Your task to perform on an android device: Go to Android settings Image 0: 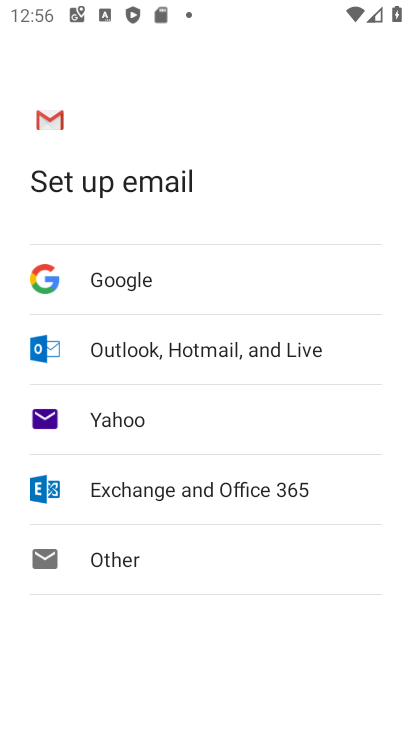
Step 0: press home button
Your task to perform on an android device: Go to Android settings Image 1: 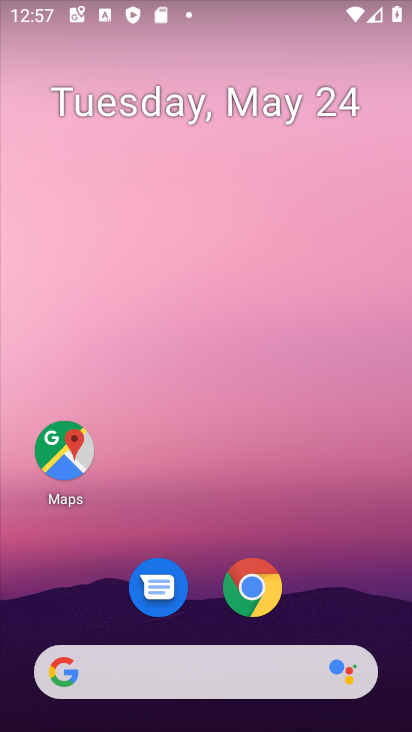
Step 1: drag from (280, 640) to (289, 209)
Your task to perform on an android device: Go to Android settings Image 2: 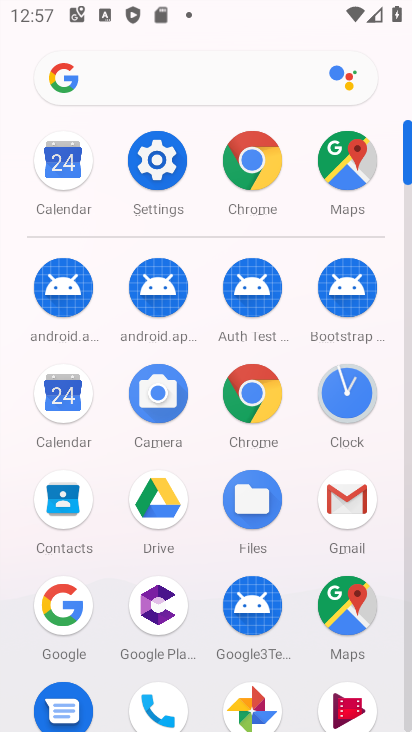
Step 2: click (169, 172)
Your task to perform on an android device: Go to Android settings Image 3: 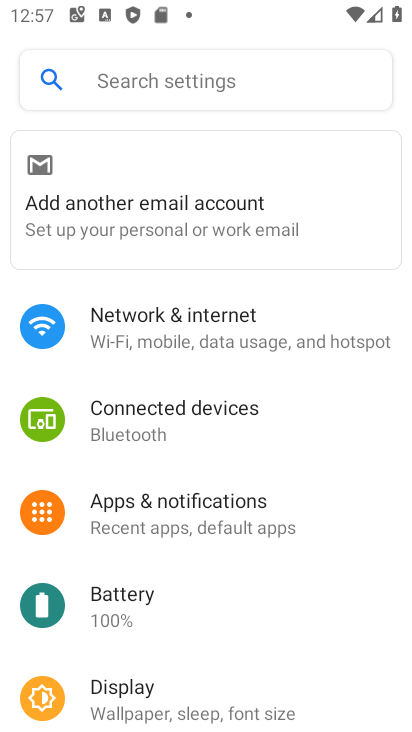
Step 3: task complete